Your task to perform on an android device: Is it going to rain today? Image 0: 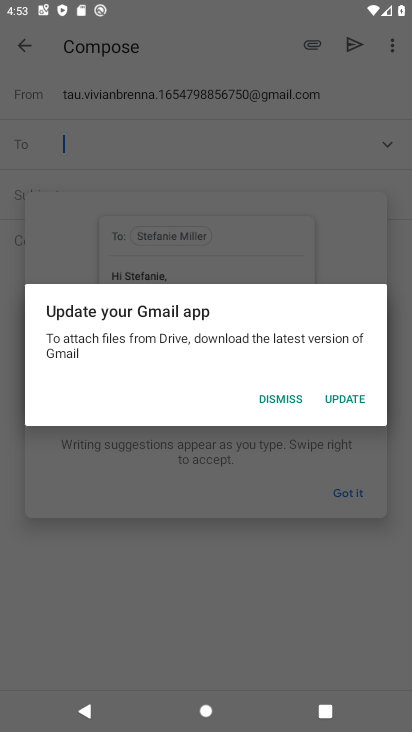
Step 0: press home button
Your task to perform on an android device: Is it going to rain today? Image 1: 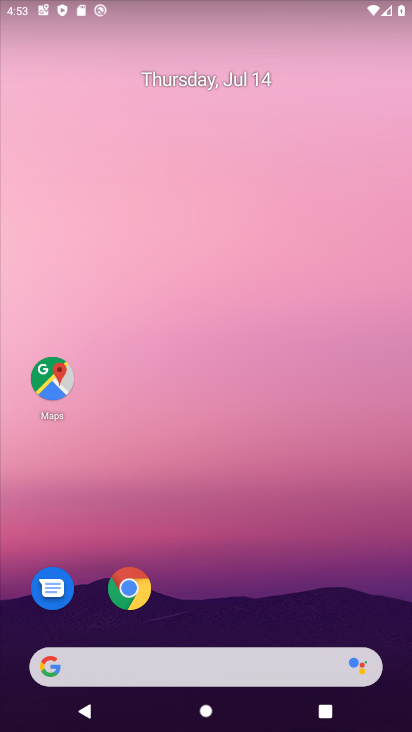
Step 1: drag from (189, 626) to (210, 337)
Your task to perform on an android device: Is it going to rain today? Image 2: 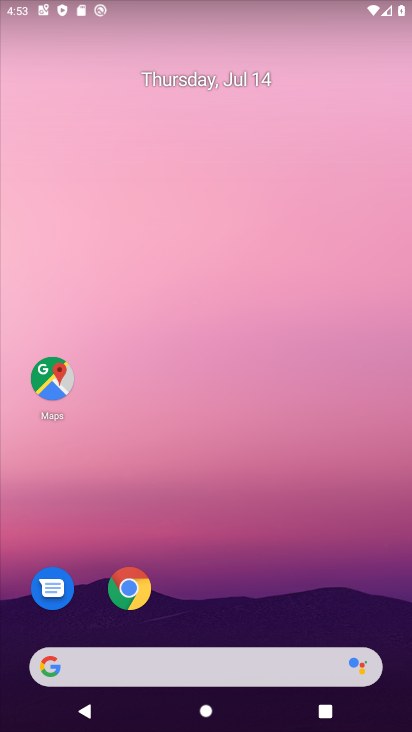
Step 2: drag from (208, 619) to (222, 380)
Your task to perform on an android device: Is it going to rain today? Image 3: 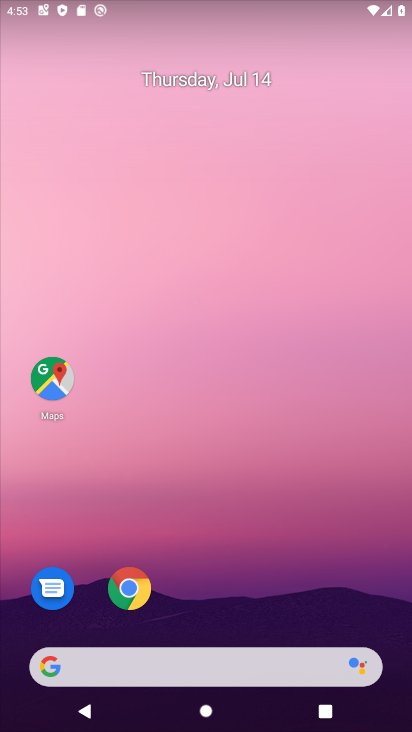
Step 3: drag from (186, 676) to (242, 169)
Your task to perform on an android device: Is it going to rain today? Image 4: 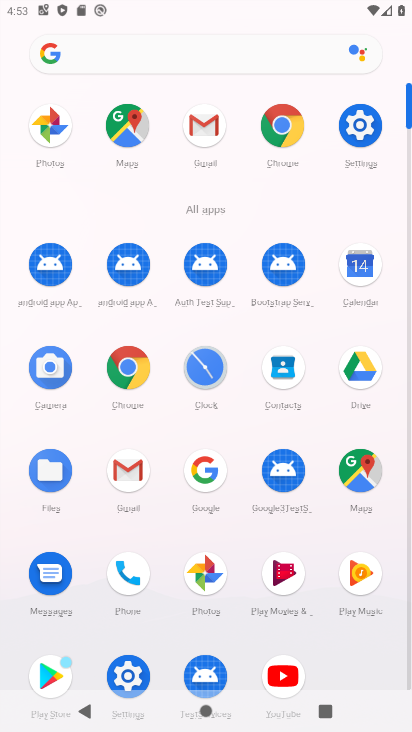
Step 4: click (200, 470)
Your task to perform on an android device: Is it going to rain today? Image 5: 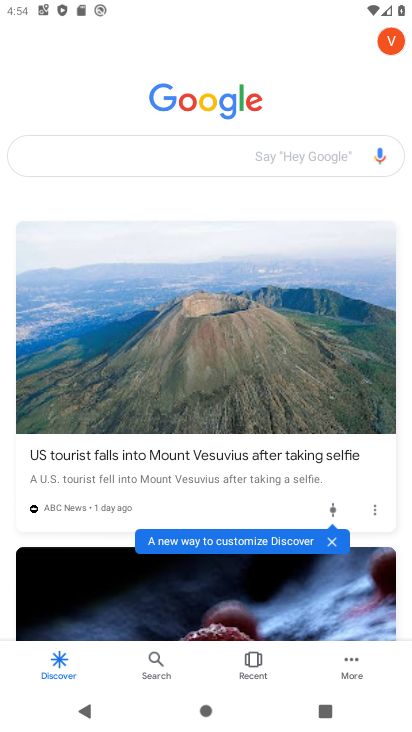
Step 5: click (134, 156)
Your task to perform on an android device: Is it going to rain today? Image 6: 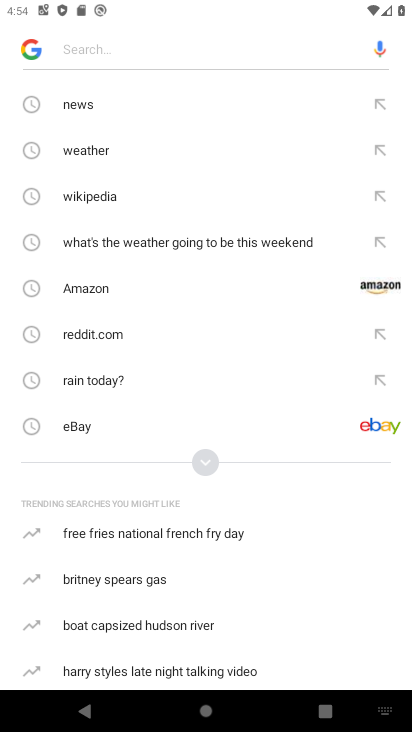
Step 6: type "Is it going to rain today?"
Your task to perform on an android device: Is it going to rain today? Image 7: 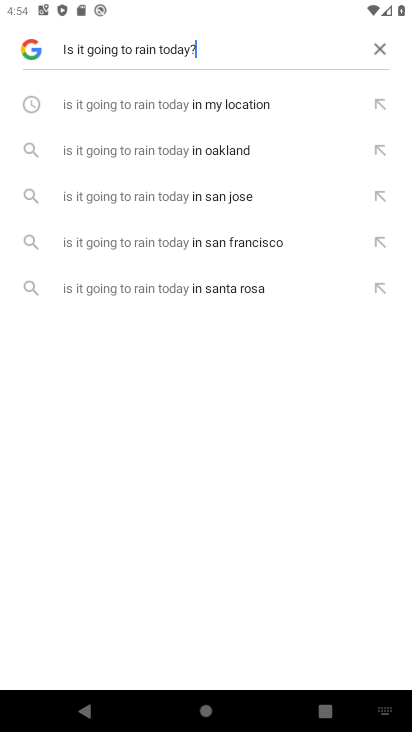
Step 7: click (171, 102)
Your task to perform on an android device: Is it going to rain today? Image 8: 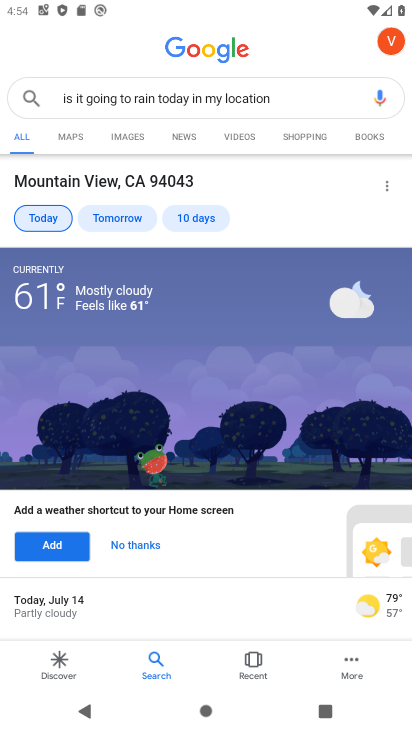
Step 8: task complete